Your task to perform on an android device: check android version Image 0: 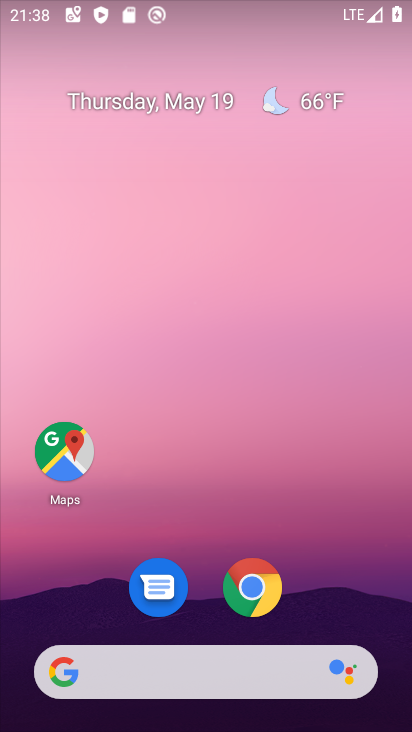
Step 0: press home button
Your task to perform on an android device: check android version Image 1: 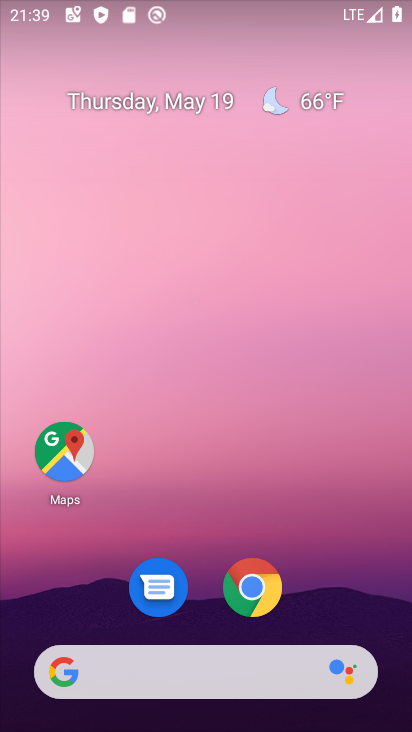
Step 1: drag from (229, 699) to (139, 112)
Your task to perform on an android device: check android version Image 2: 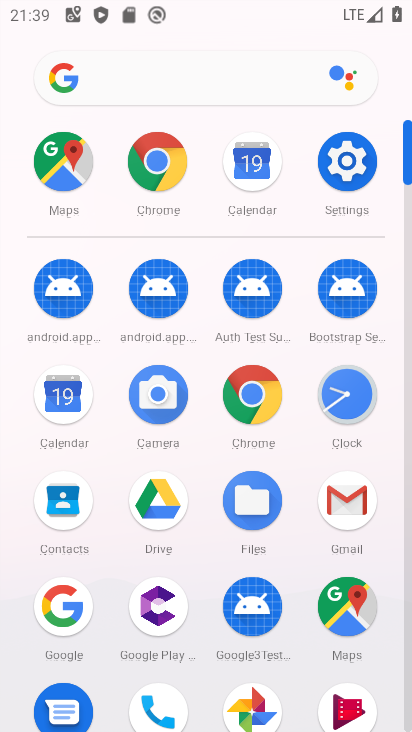
Step 2: click (367, 164)
Your task to perform on an android device: check android version Image 3: 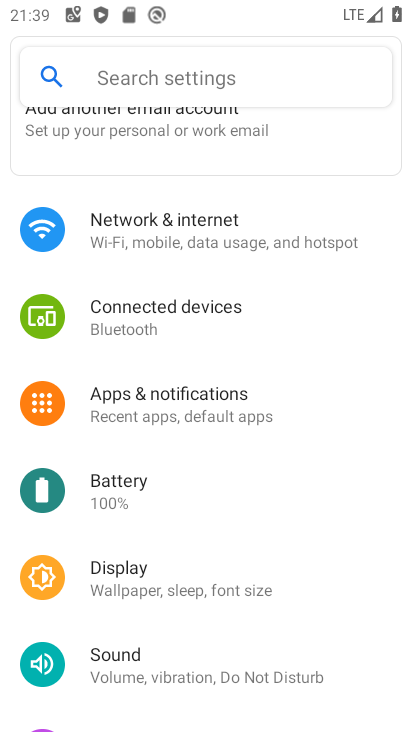
Step 3: click (130, 74)
Your task to perform on an android device: check android version Image 4: 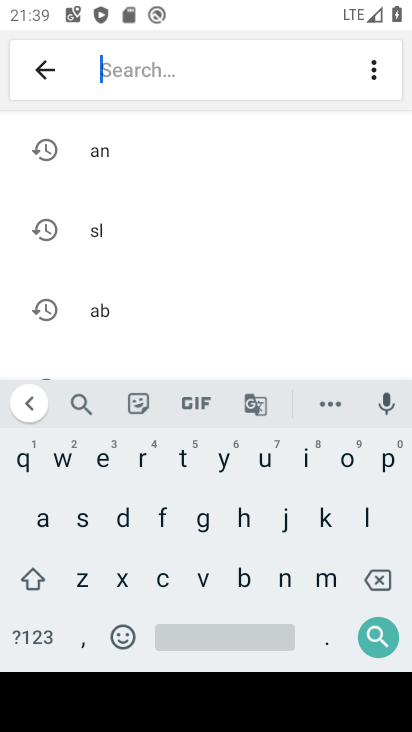
Step 4: click (133, 150)
Your task to perform on an android device: check android version Image 5: 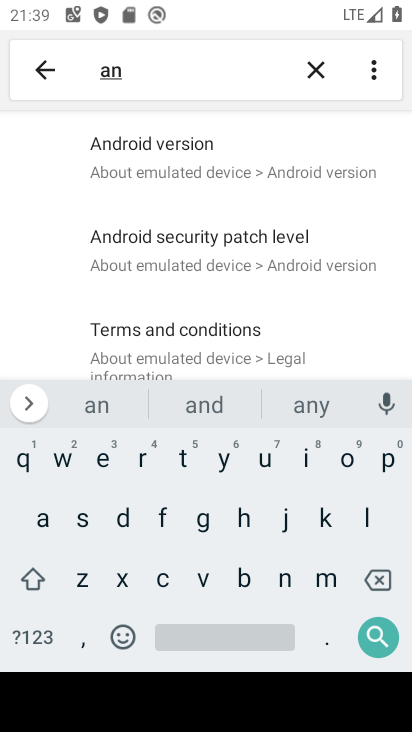
Step 5: click (133, 150)
Your task to perform on an android device: check android version Image 6: 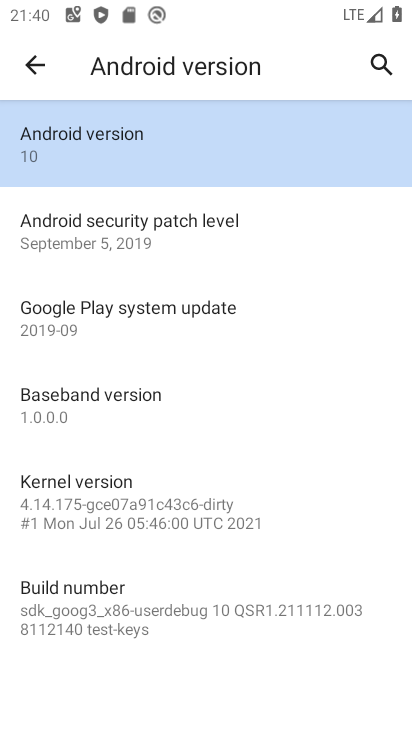
Step 6: click (138, 145)
Your task to perform on an android device: check android version Image 7: 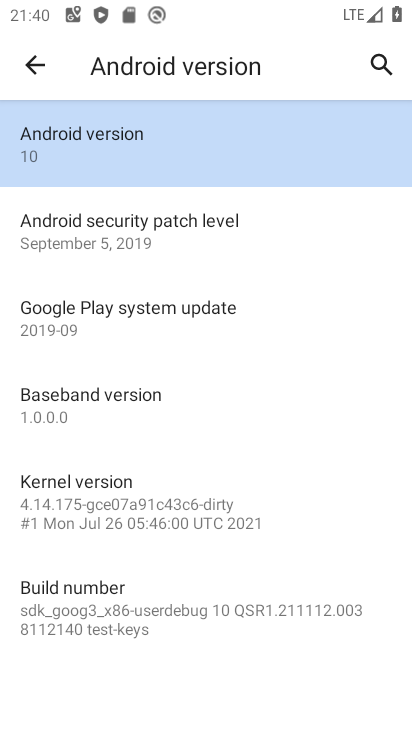
Step 7: task complete